Your task to perform on an android device: open the mobile data screen to see how much data has been used Image 0: 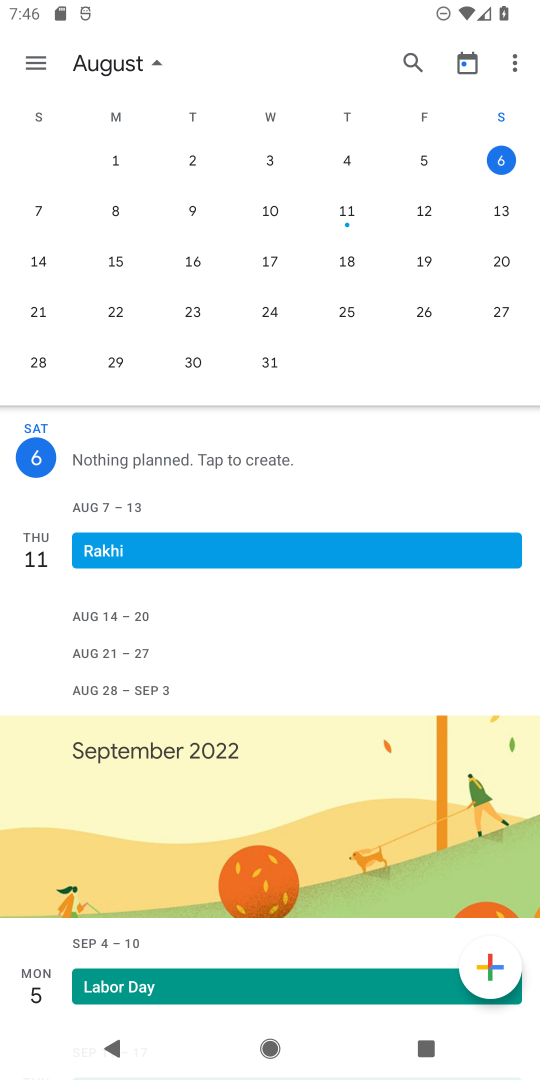
Step 0: press home button
Your task to perform on an android device: open the mobile data screen to see how much data has been used Image 1: 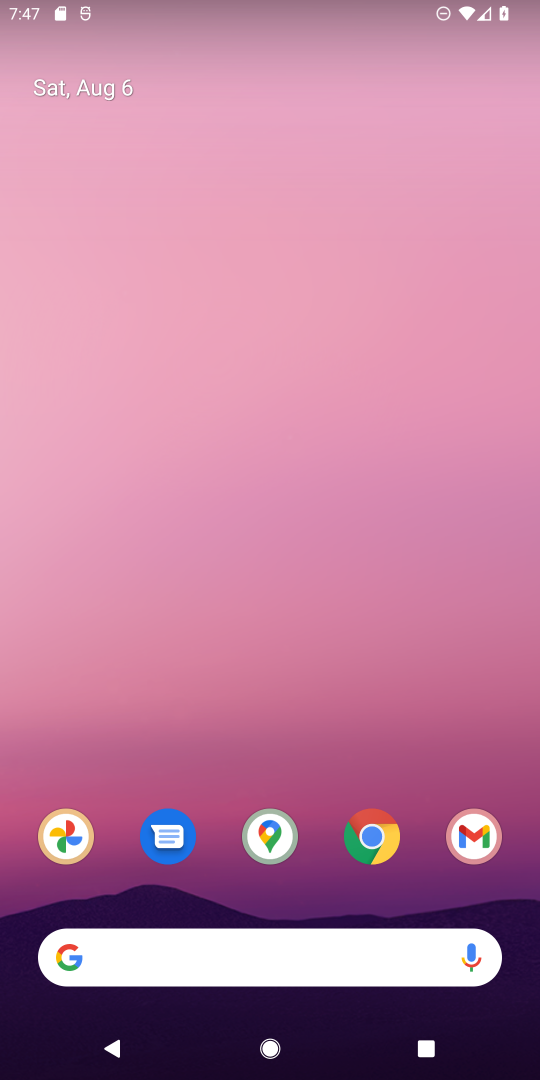
Step 1: drag from (225, 939) to (292, 516)
Your task to perform on an android device: open the mobile data screen to see how much data has been used Image 2: 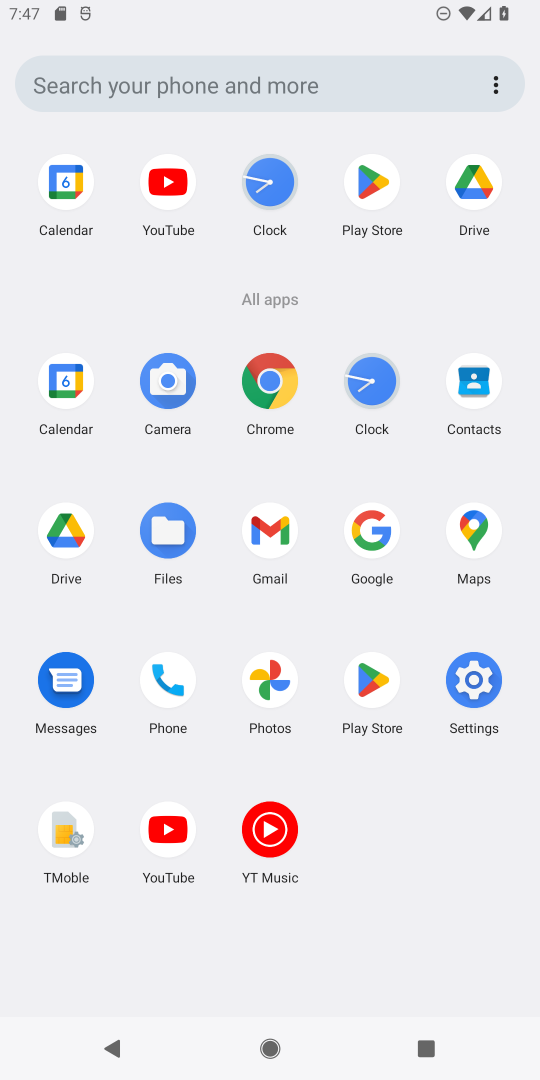
Step 2: click (488, 687)
Your task to perform on an android device: open the mobile data screen to see how much data has been used Image 3: 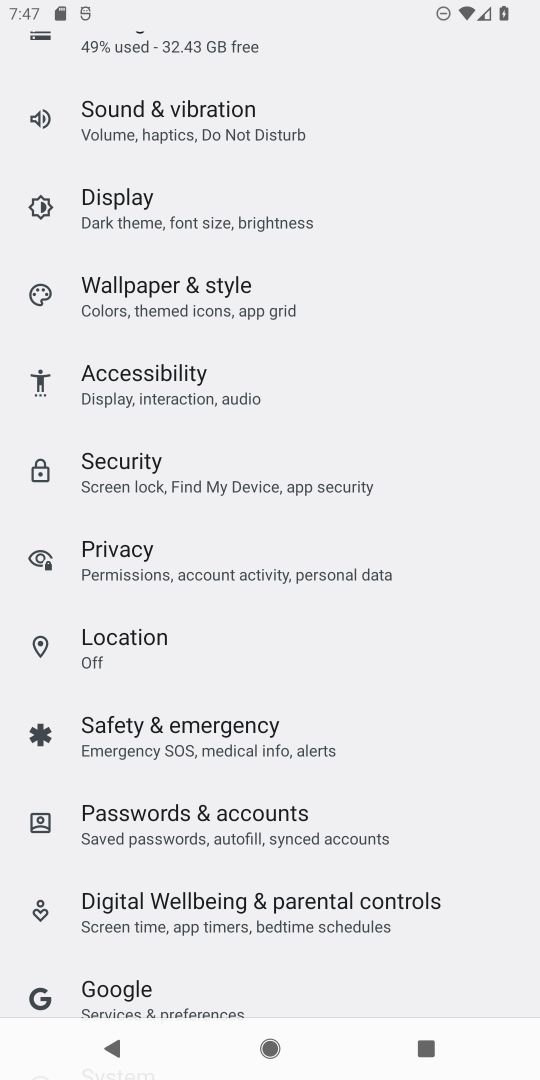
Step 3: drag from (146, 108) to (203, 669)
Your task to perform on an android device: open the mobile data screen to see how much data has been used Image 4: 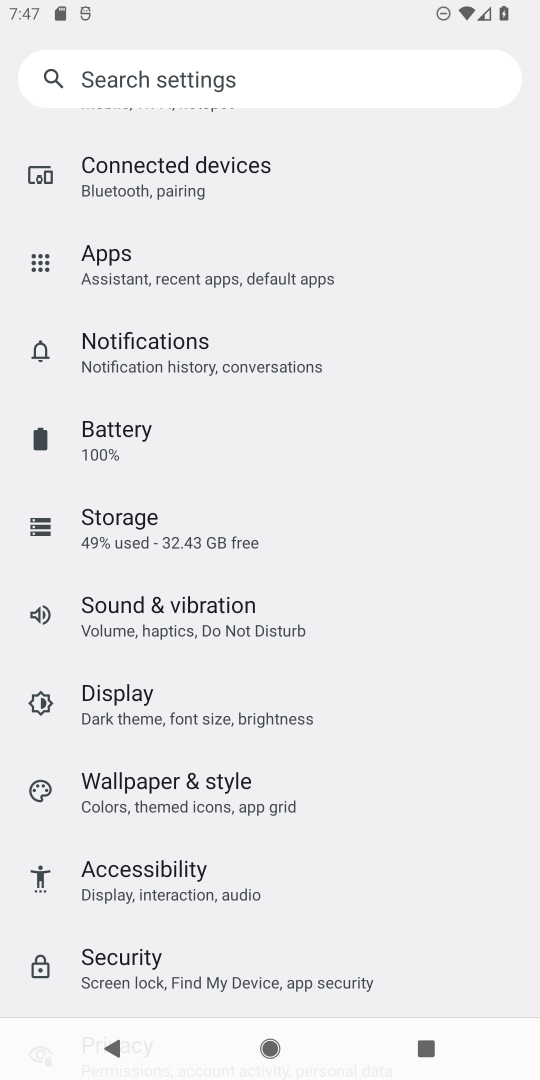
Step 4: drag from (197, 143) to (196, 618)
Your task to perform on an android device: open the mobile data screen to see how much data has been used Image 5: 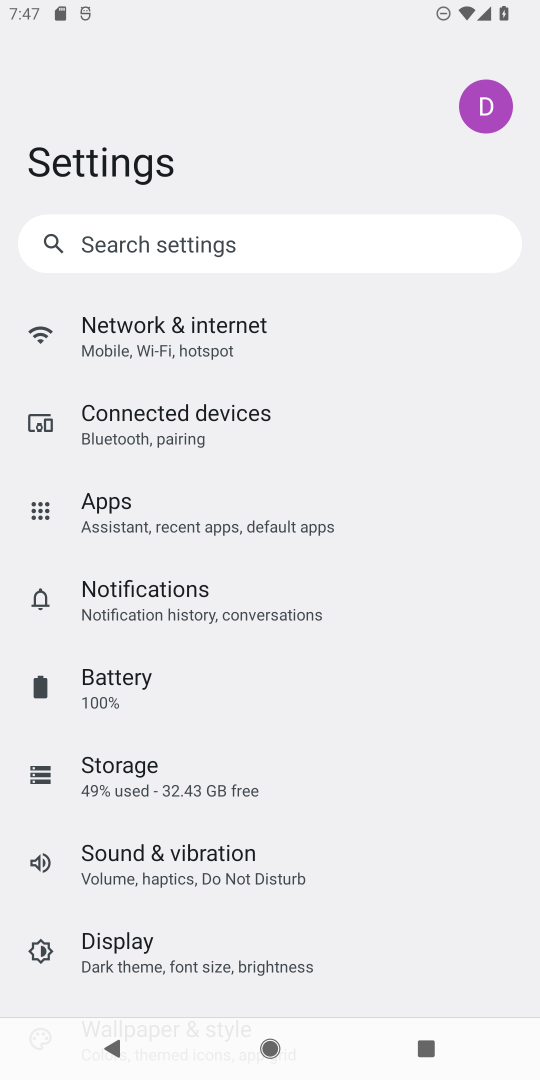
Step 5: click (136, 332)
Your task to perform on an android device: open the mobile data screen to see how much data has been used Image 6: 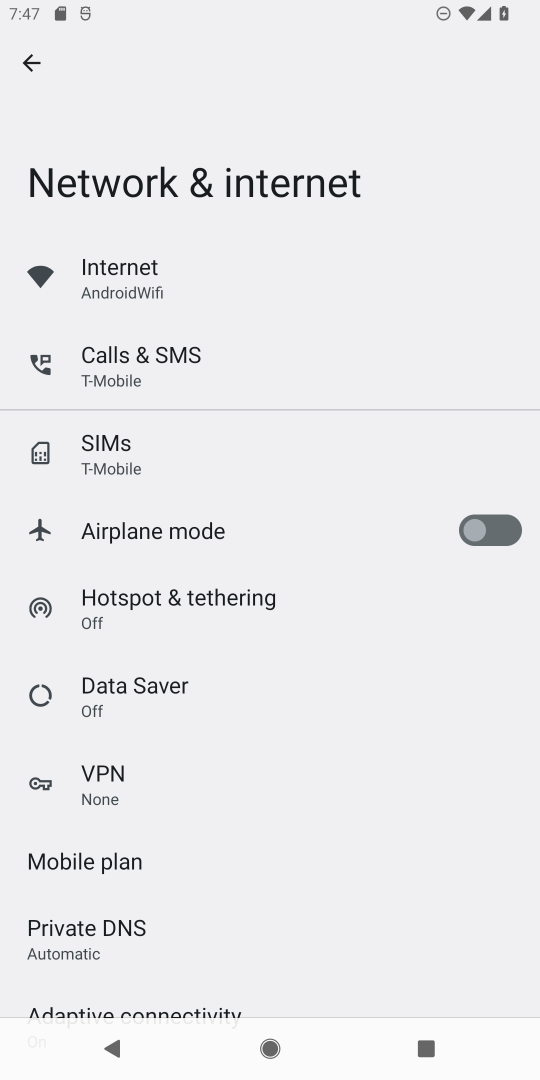
Step 6: click (147, 274)
Your task to perform on an android device: open the mobile data screen to see how much data has been used Image 7: 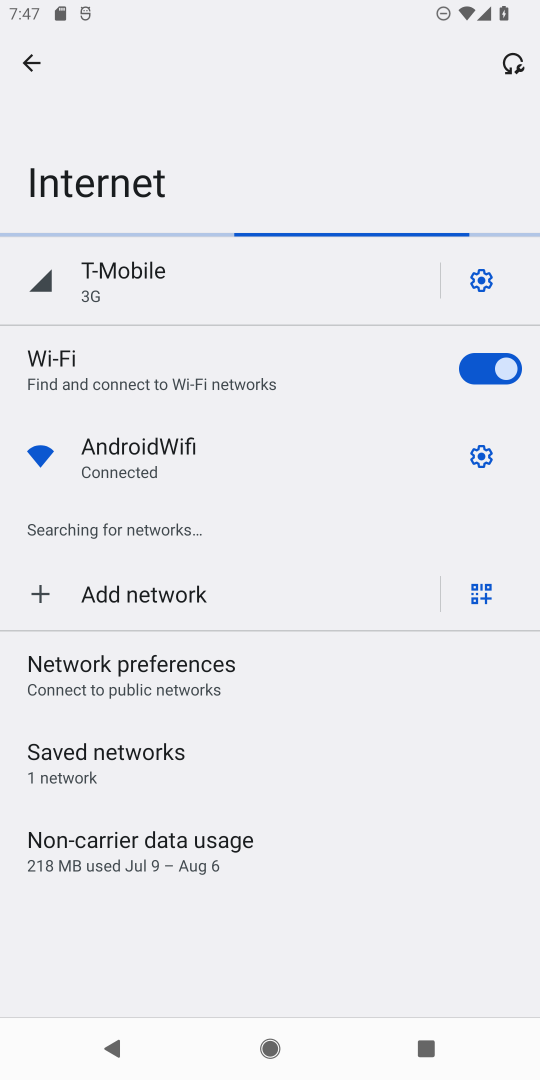
Step 7: task complete